Your task to perform on an android device: turn on data saver in the chrome app Image 0: 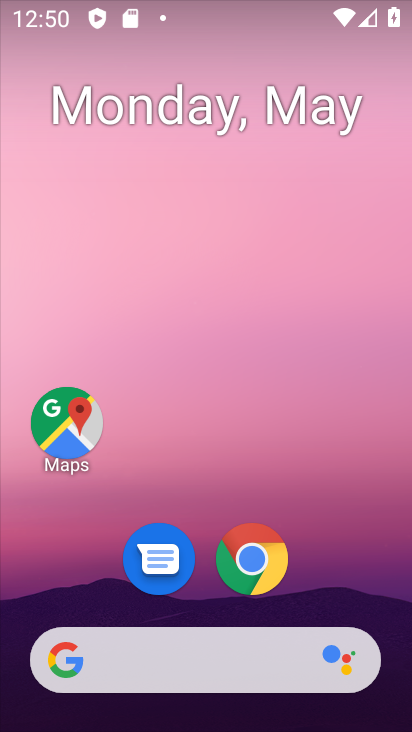
Step 0: click (260, 577)
Your task to perform on an android device: turn on data saver in the chrome app Image 1: 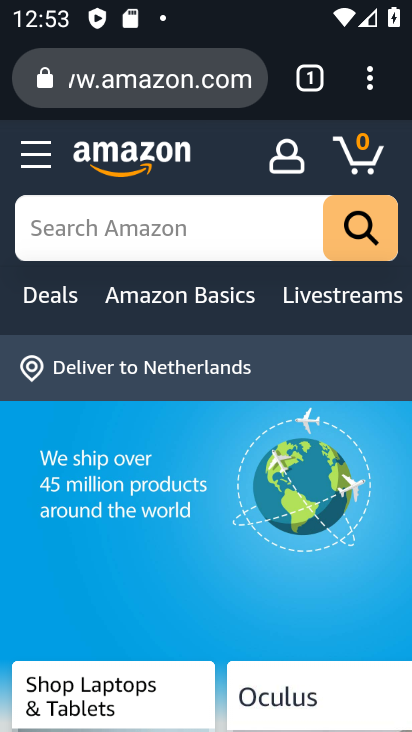
Step 1: click (359, 87)
Your task to perform on an android device: turn on data saver in the chrome app Image 2: 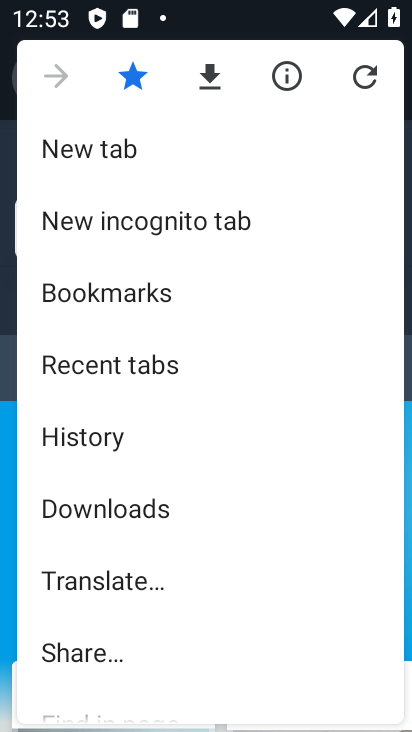
Step 2: drag from (291, 650) to (301, 214)
Your task to perform on an android device: turn on data saver in the chrome app Image 3: 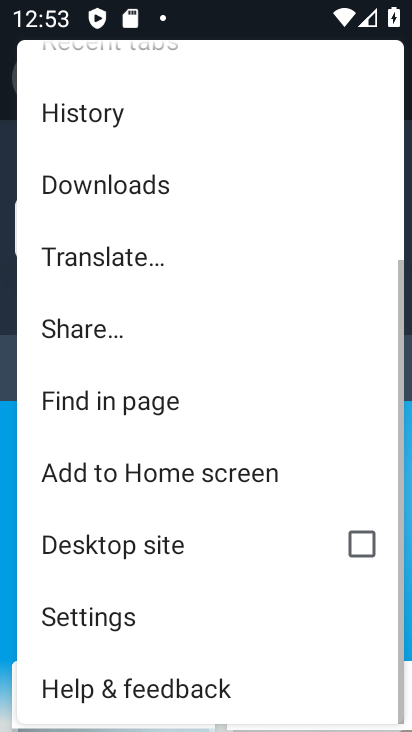
Step 3: click (102, 622)
Your task to perform on an android device: turn on data saver in the chrome app Image 4: 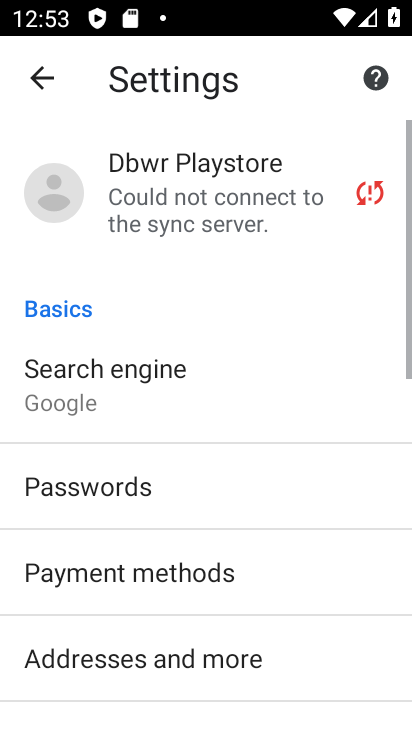
Step 4: drag from (192, 663) to (214, 189)
Your task to perform on an android device: turn on data saver in the chrome app Image 5: 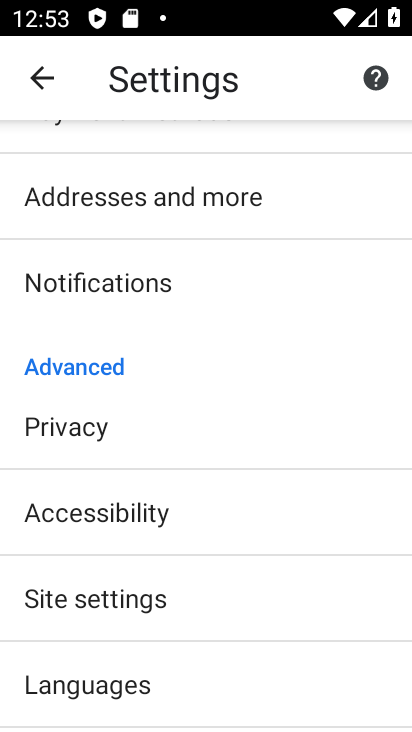
Step 5: drag from (150, 714) to (150, 308)
Your task to perform on an android device: turn on data saver in the chrome app Image 6: 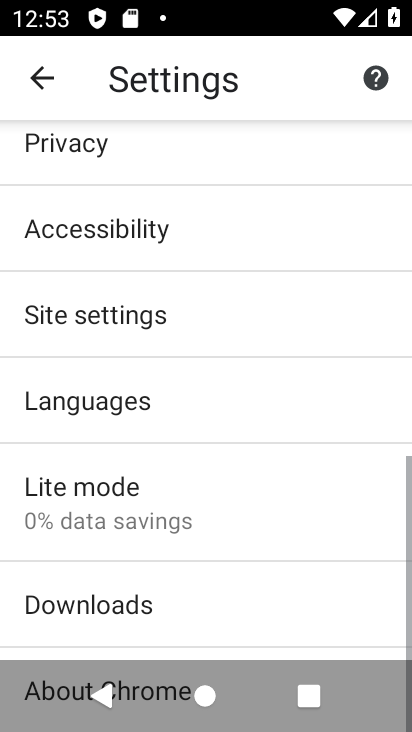
Step 6: click (150, 494)
Your task to perform on an android device: turn on data saver in the chrome app Image 7: 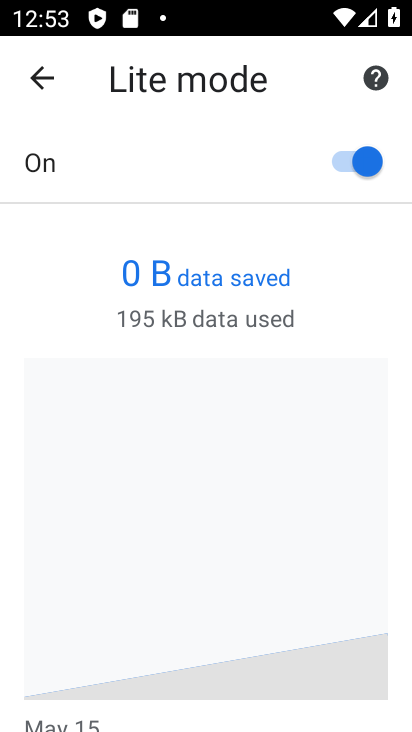
Step 7: task complete